Your task to perform on an android device: turn smart compose on in the gmail app Image 0: 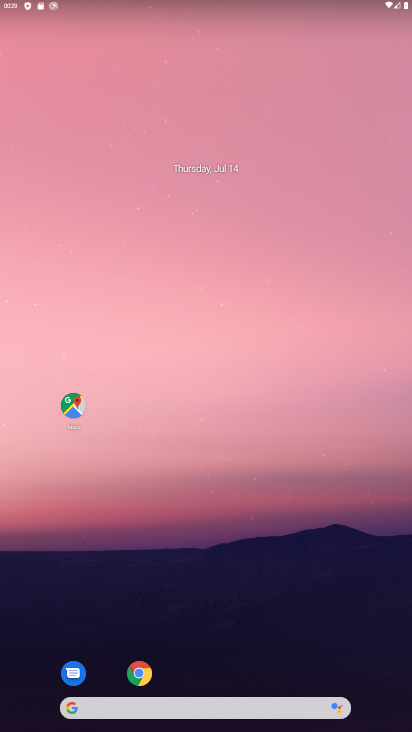
Step 0: drag from (299, 645) to (278, 423)
Your task to perform on an android device: turn smart compose on in the gmail app Image 1: 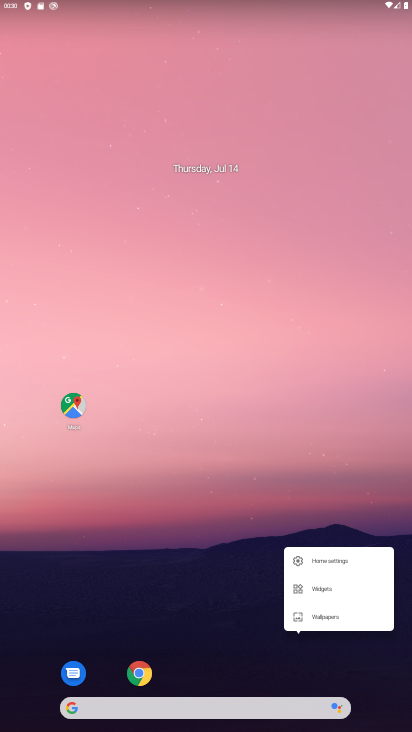
Step 1: click (278, 423)
Your task to perform on an android device: turn smart compose on in the gmail app Image 2: 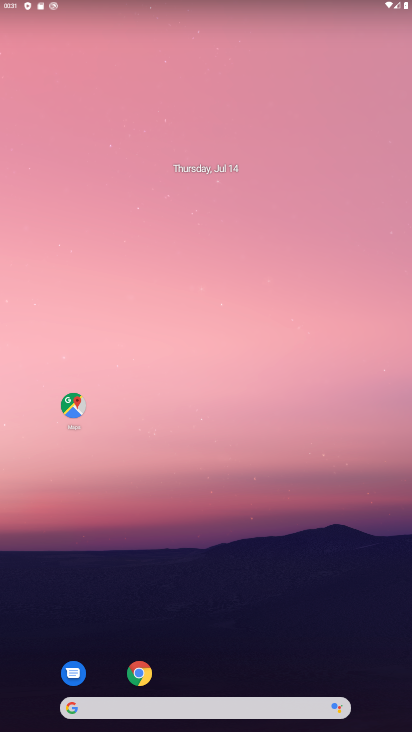
Step 2: drag from (223, 630) to (173, 207)
Your task to perform on an android device: turn smart compose on in the gmail app Image 3: 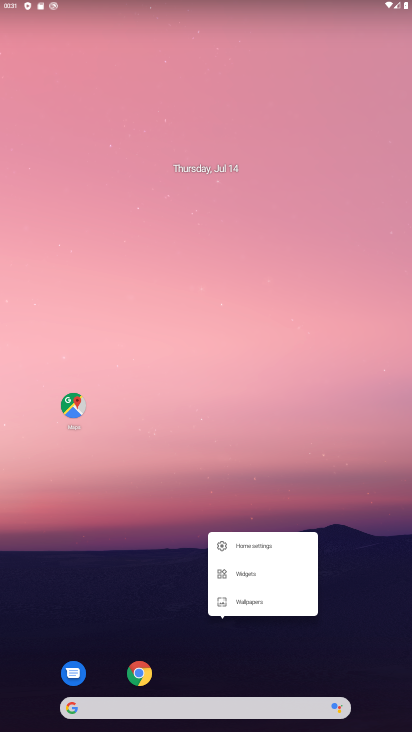
Step 3: click (173, 218)
Your task to perform on an android device: turn smart compose on in the gmail app Image 4: 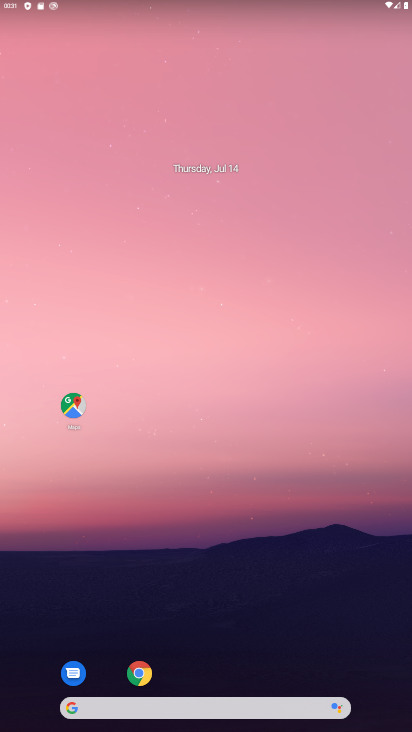
Step 4: drag from (299, 657) to (271, 169)
Your task to perform on an android device: turn smart compose on in the gmail app Image 5: 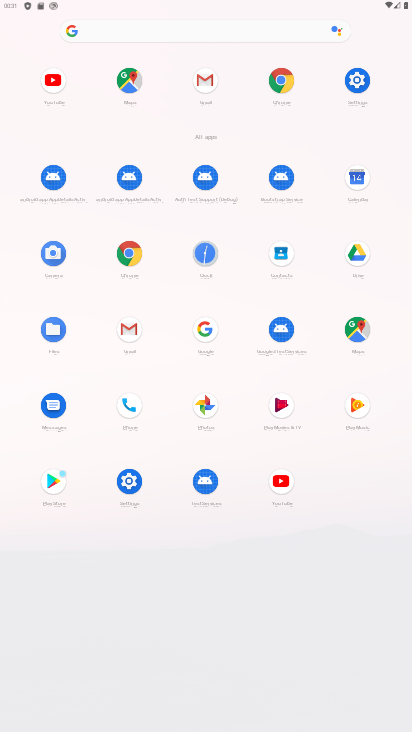
Step 5: click (124, 345)
Your task to perform on an android device: turn smart compose on in the gmail app Image 6: 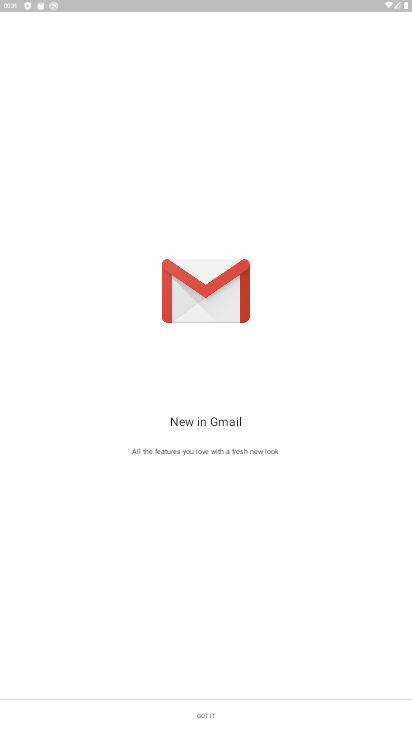
Step 6: click (195, 707)
Your task to perform on an android device: turn smart compose on in the gmail app Image 7: 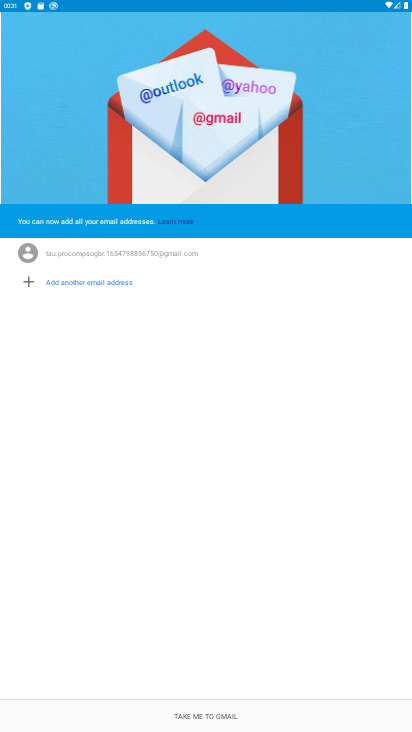
Step 7: click (195, 707)
Your task to perform on an android device: turn smart compose on in the gmail app Image 8: 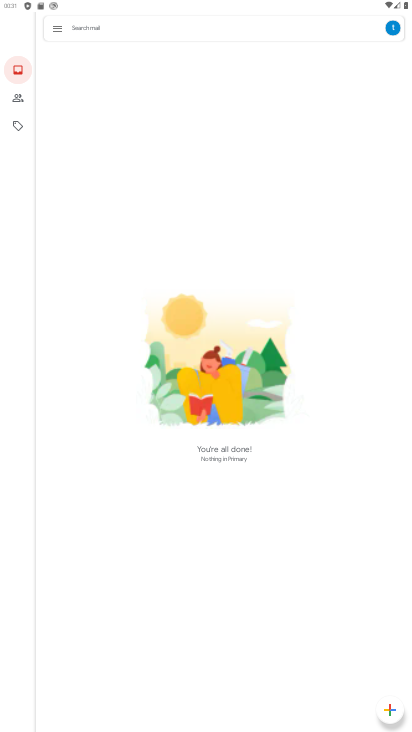
Step 8: click (385, 710)
Your task to perform on an android device: turn smart compose on in the gmail app Image 9: 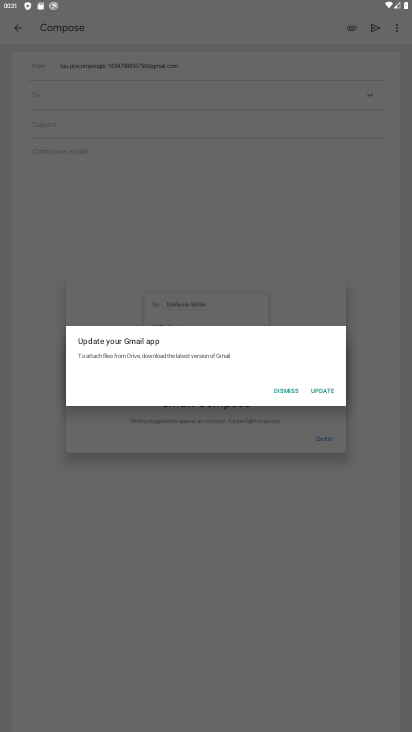
Step 9: click (313, 391)
Your task to perform on an android device: turn smart compose on in the gmail app Image 10: 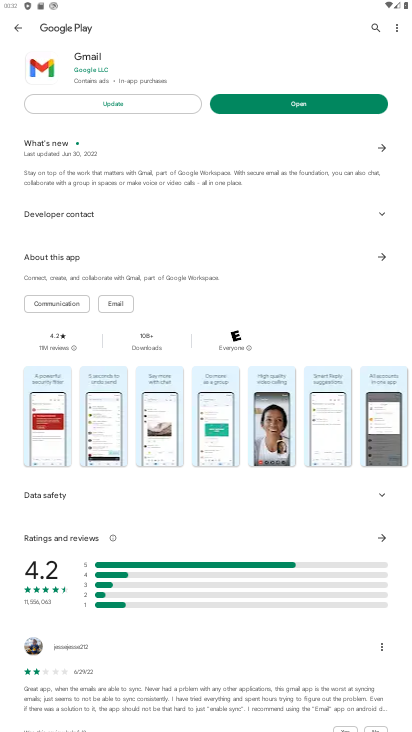
Step 10: click (151, 108)
Your task to perform on an android device: turn smart compose on in the gmail app Image 11: 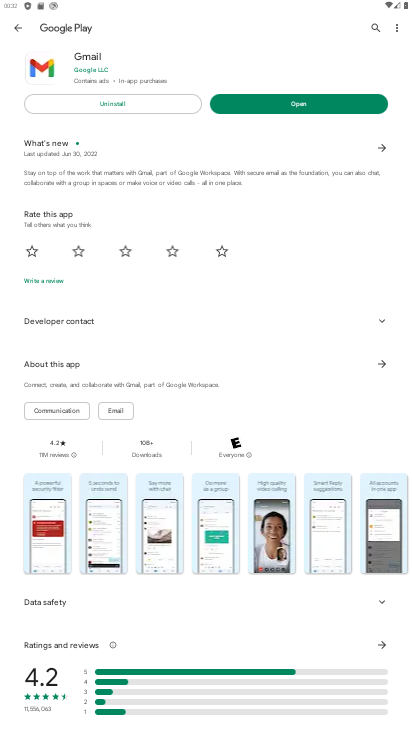
Step 11: click (325, 107)
Your task to perform on an android device: turn smart compose on in the gmail app Image 12: 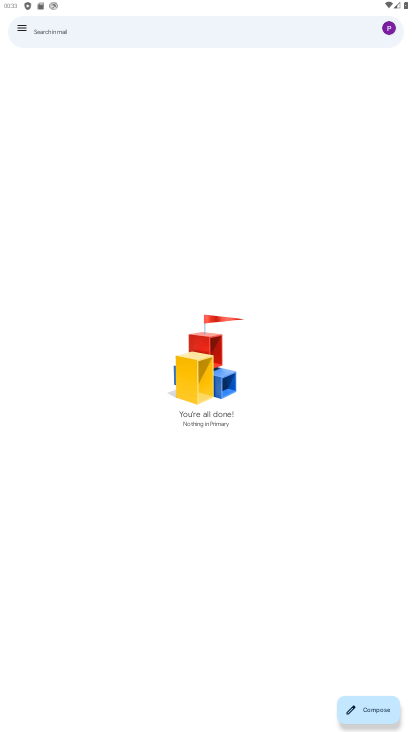
Step 12: task complete